Your task to perform on an android device: Go to Maps Image 0: 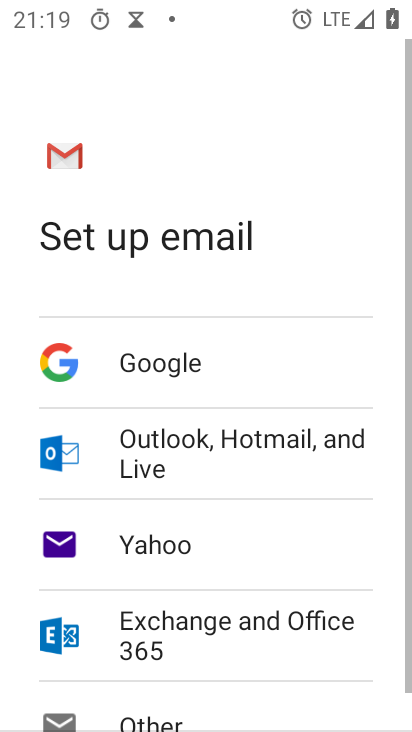
Step 0: press home button
Your task to perform on an android device: Go to Maps Image 1: 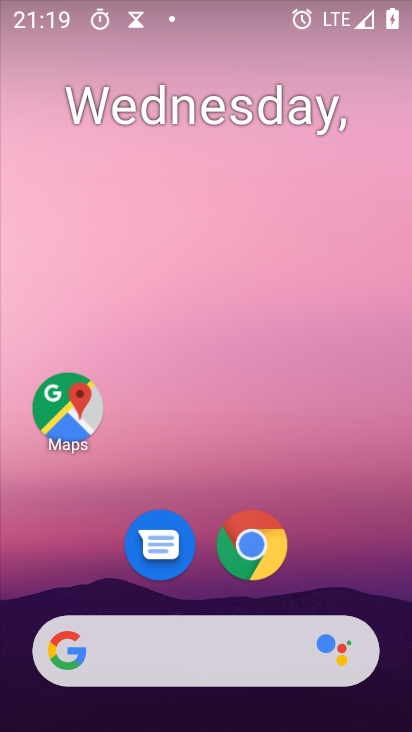
Step 1: click (61, 422)
Your task to perform on an android device: Go to Maps Image 2: 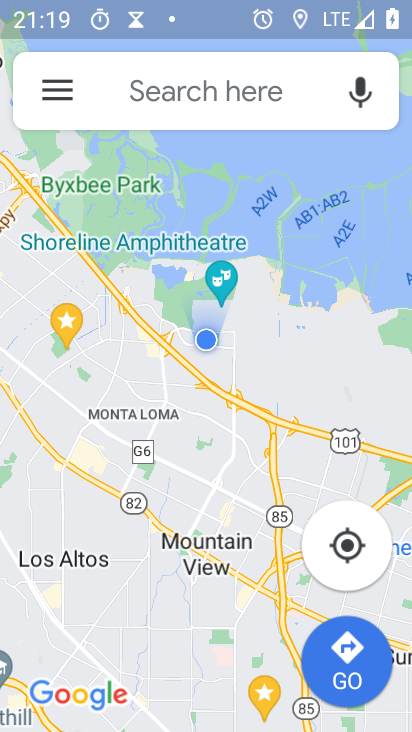
Step 2: task complete